Your task to perform on an android device: Open the Play Movies app and select the watchlist tab. Image 0: 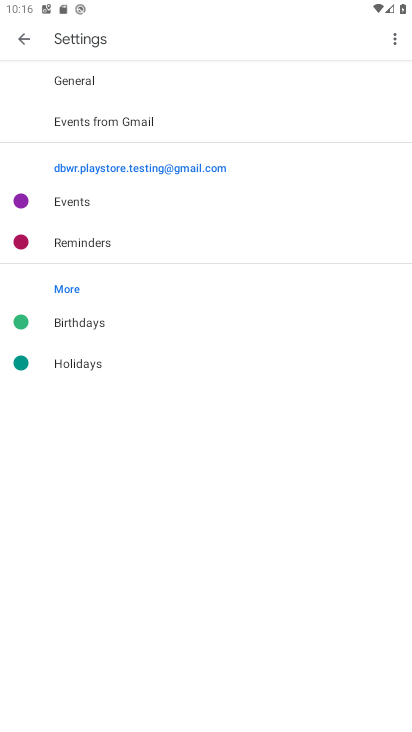
Step 0: press back button
Your task to perform on an android device: Open the Play Movies app and select the watchlist tab. Image 1: 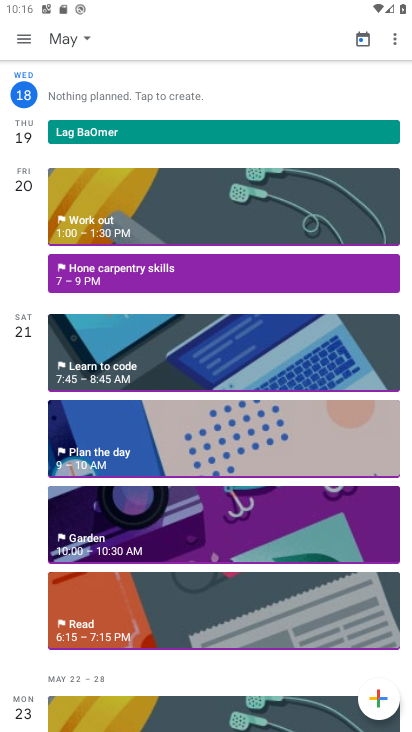
Step 1: press back button
Your task to perform on an android device: Open the Play Movies app and select the watchlist tab. Image 2: 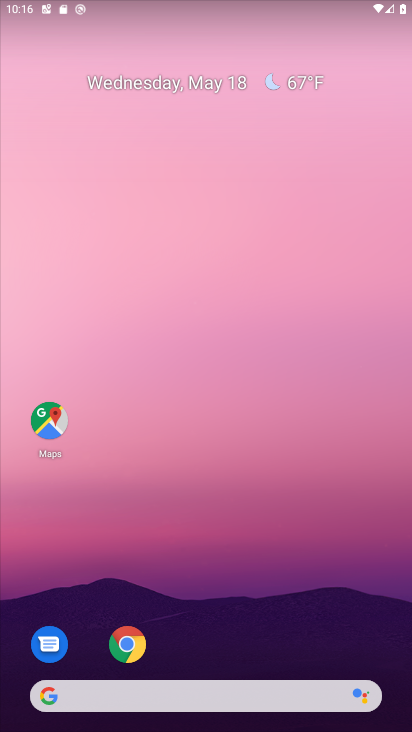
Step 2: drag from (242, 614) to (194, 102)
Your task to perform on an android device: Open the Play Movies app and select the watchlist tab. Image 3: 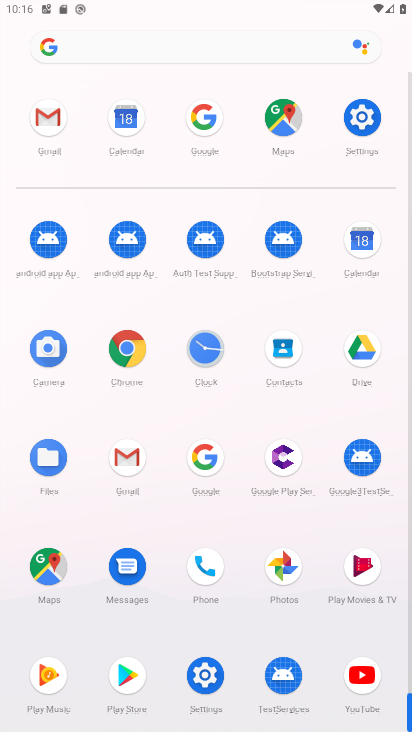
Step 3: click (360, 570)
Your task to perform on an android device: Open the Play Movies app and select the watchlist tab. Image 4: 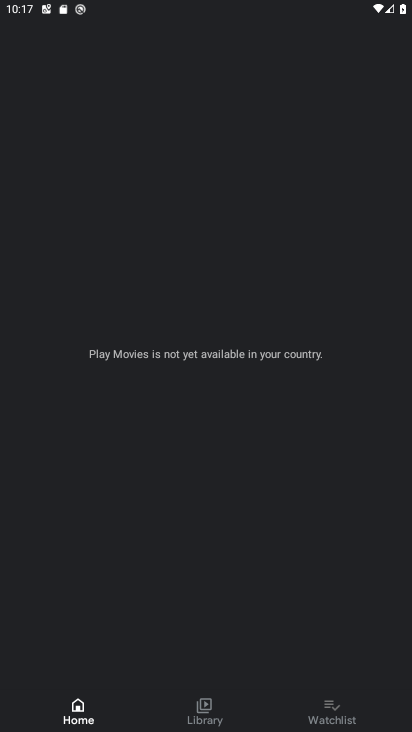
Step 4: click (332, 708)
Your task to perform on an android device: Open the Play Movies app and select the watchlist tab. Image 5: 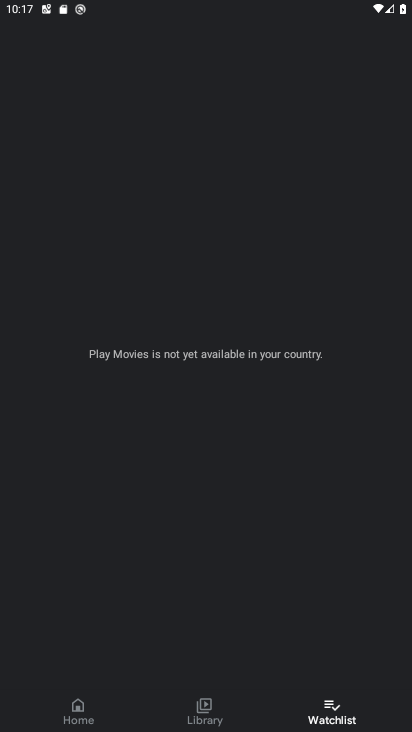
Step 5: task complete